Your task to perform on an android device: Open Chrome and go to the settings page Image 0: 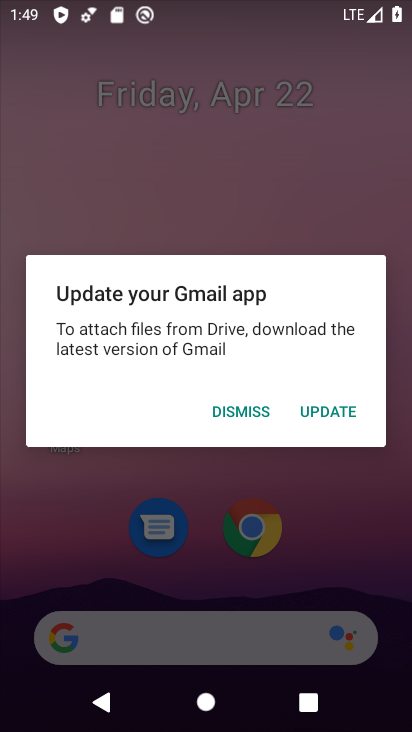
Step 0: press home button
Your task to perform on an android device: Open Chrome and go to the settings page Image 1: 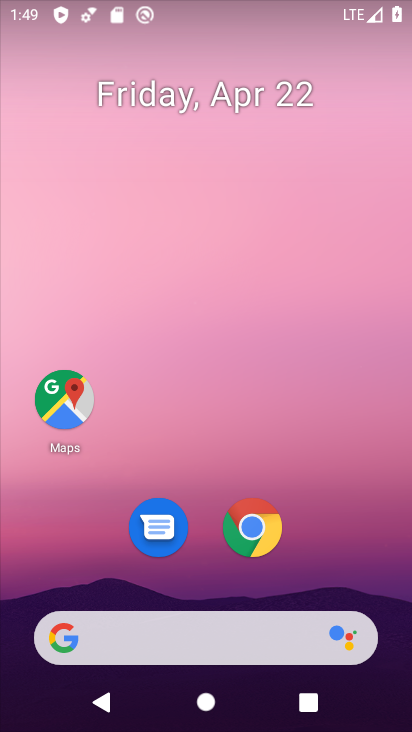
Step 1: click (259, 535)
Your task to perform on an android device: Open Chrome and go to the settings page Image 2: 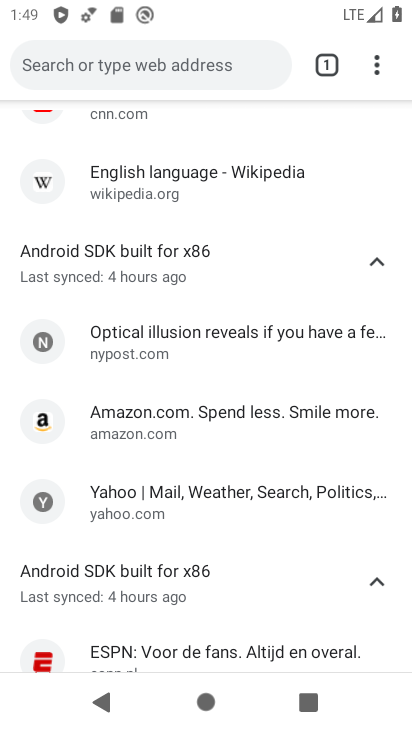
Step 2: task complete